Your task to perform on an android device: Go to settings Image 0: 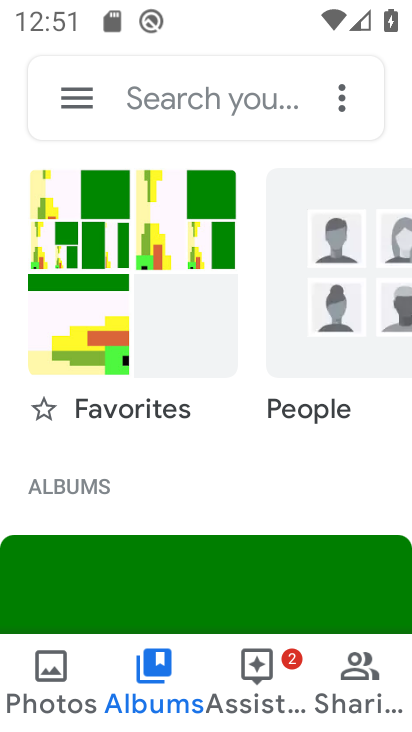
Step 0: press home button
Your task to perform on an android device: Go to settings Image 1: 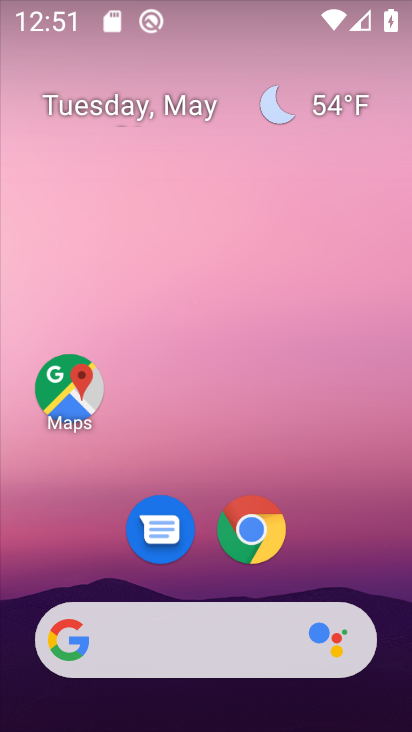
Step 1: drag from (319, 398) to (318, 304)
Your task to perform on an android device: Go to settings Image 2: 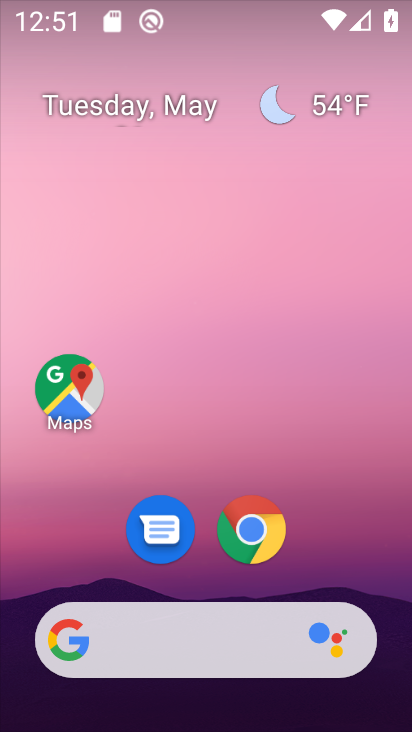
Step 2: drag from (218, 559) to (208, 186)
Your task to perform on an android device: Go to settings Image 3: 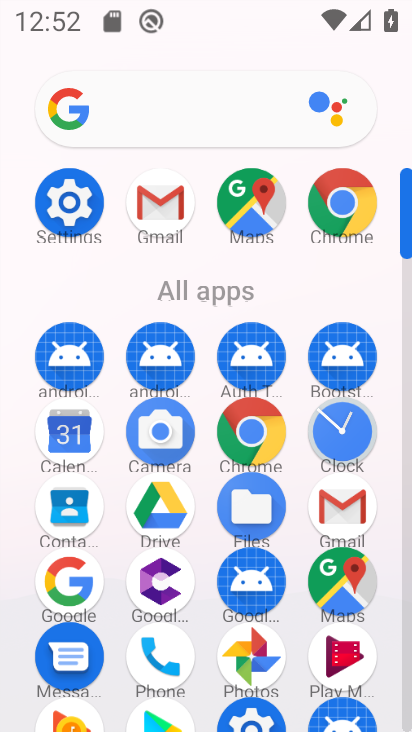
Step 3: click (52, 193)
Your task to perform on an android device: Go to settings Image 4: 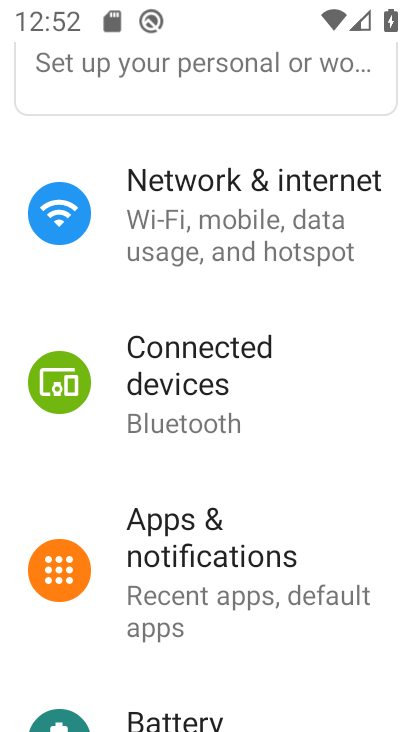
Step 4: task complete